Your task to perform on an android device: turn off location Image 0: 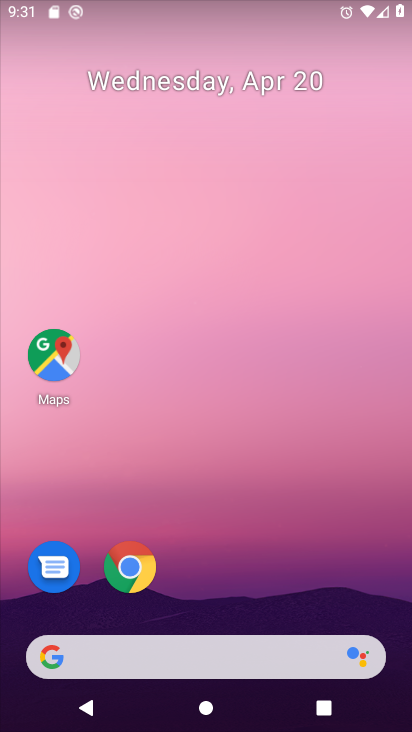
Step 0: drag from (327, 566) to (337, 181)
Your task to perform on an android device: turn off location Image 1: 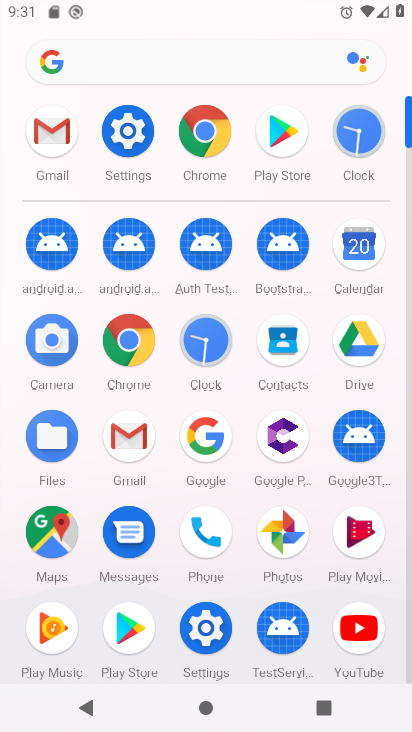
Step 1: click (120, 135)
Your task to perform on an android device: turn off location Image 2: 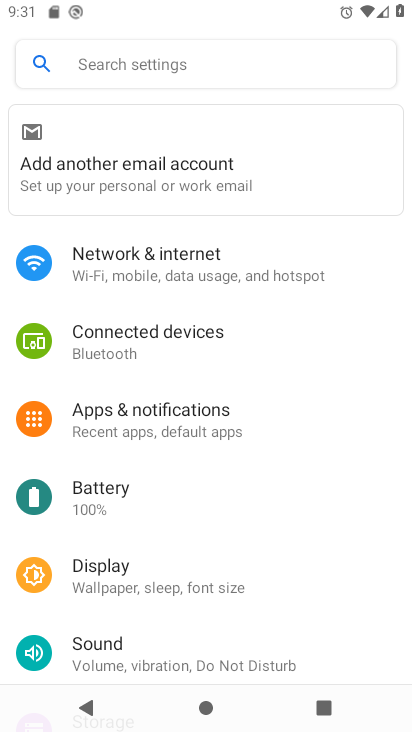
Step 2: drag from (355, 579) to (363, 327)
Your task to perform on an android device: turn off location Image 3: 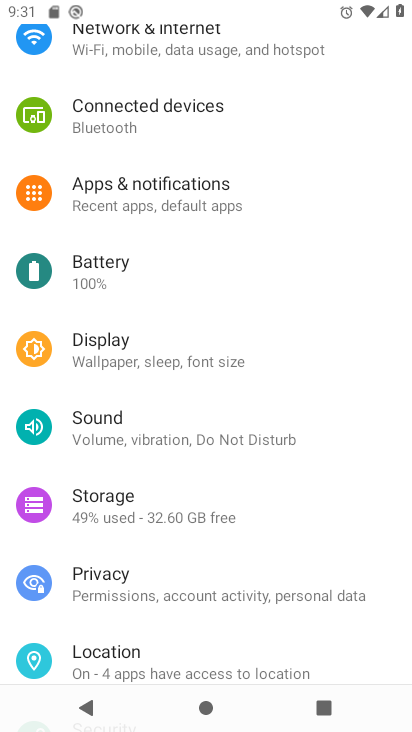
Step 3: drag from (342, 474) to (352, 290)
Your task to perform on an android device: turn off location Image 4: 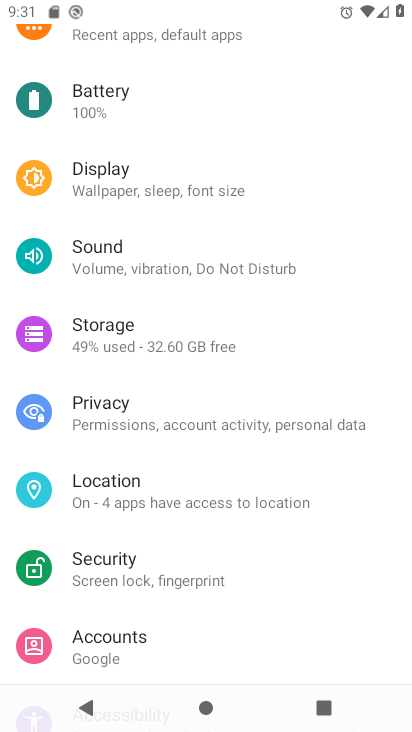
Step 4: drag from (334, 484) to (337, 298)
Your task to perform on an android device: turn off location Image 5: 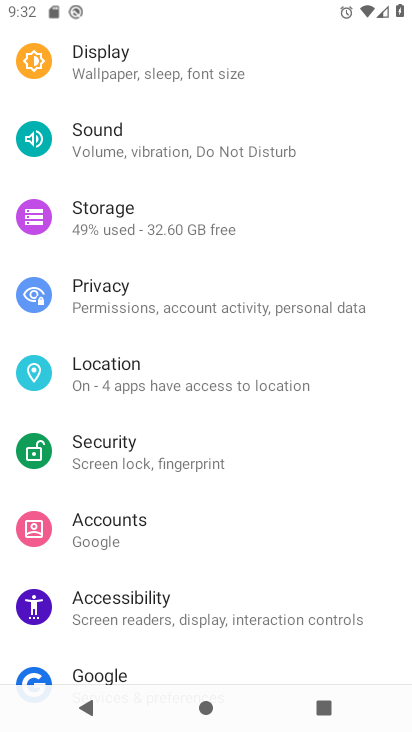
Step 5: click (211, 374)
Your task to perform on an android device: turn off location Image 6: 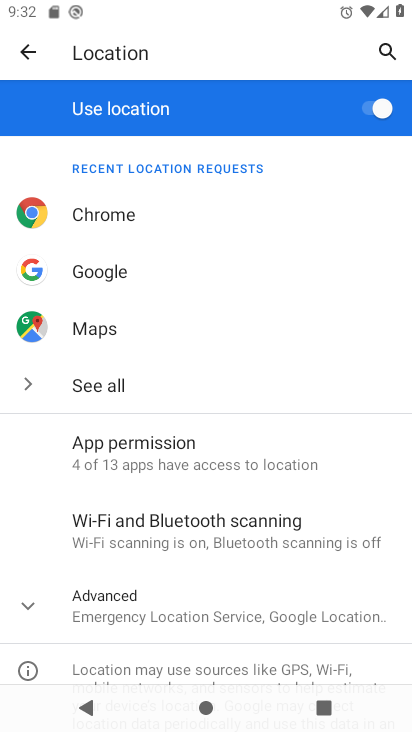
Step 6: click (375, 108)
Your task to perform on an android device: turn off location Image 7: 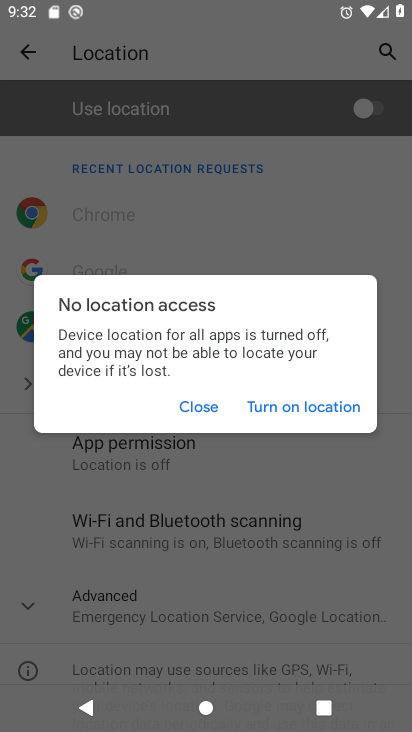
Step 7: task complete